Your task to perform on an android device: Go to battery settings Image 0: 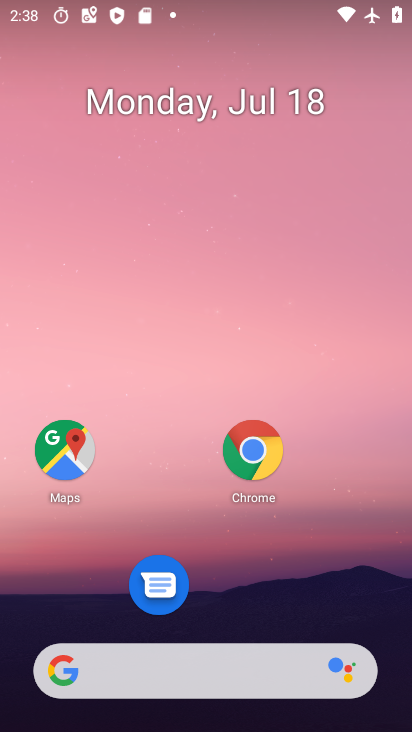
Step 0: press home button
Your task to perform on an android device: Go to battery settings Image 1: 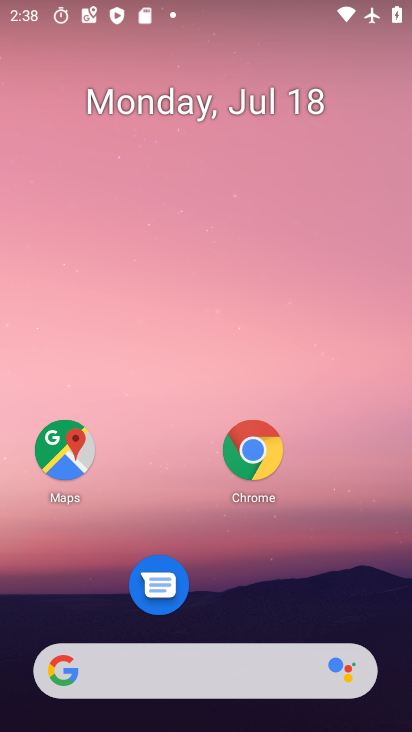
Step 1: drag from (195, 665) to (292, 1)
Your task to perform on an android device: Go to battery settings Image 2: 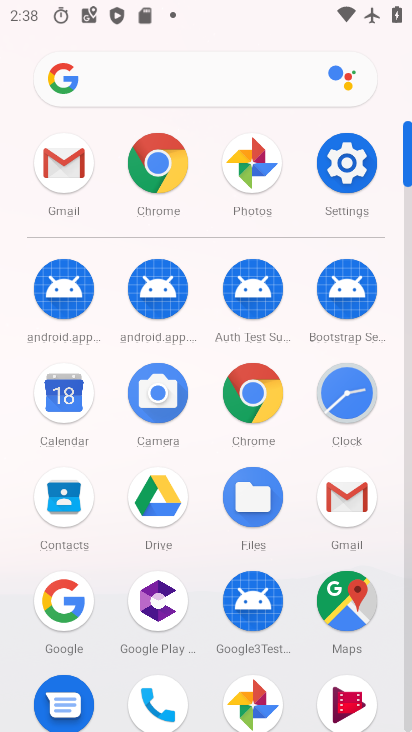
Step 2: click (357, 169)
Your task to perform on an android device: Go to battery settings Image 3: 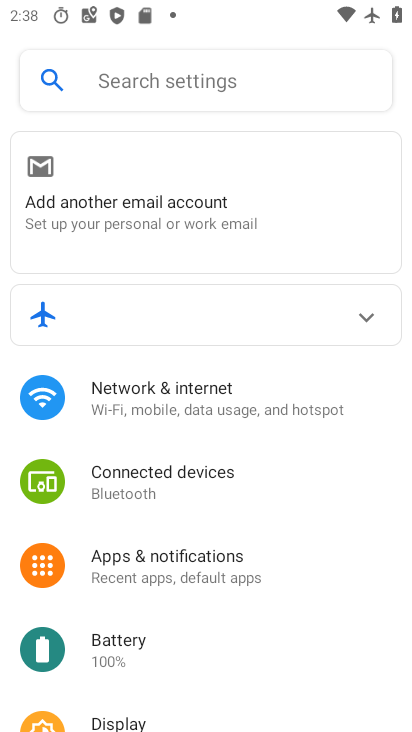
Step 3: click (130, 646)
Your task to perform on an android device: Go to battery settings Image 4: 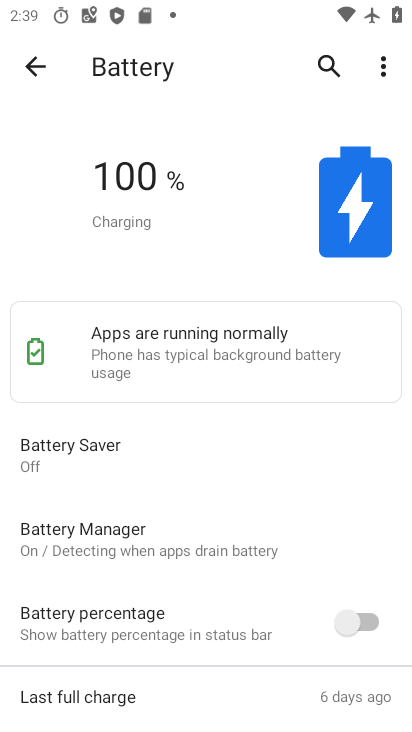
Step 4: task complete